Your task to perform on an android device: Open the Play Movies app and select the watchlist tab. Image 0: 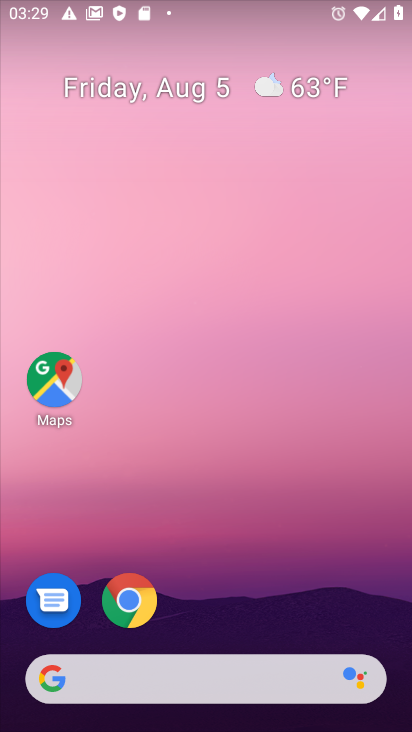
Step 0: drag from (176, 680) to (268, 2)
Your task to perform on an android device: Open the Play Movies app and select the watchlist tab. Image 1: 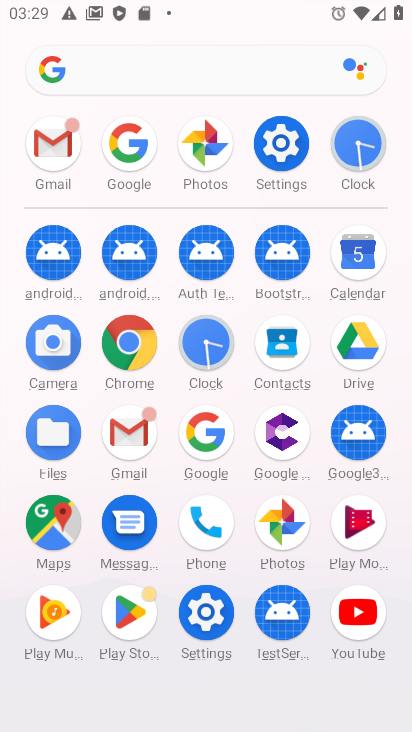
Step 1: click (359, 522)
Your task to perform on an android device: Open the Play Movies app and select the watchlist tab. Image 2: 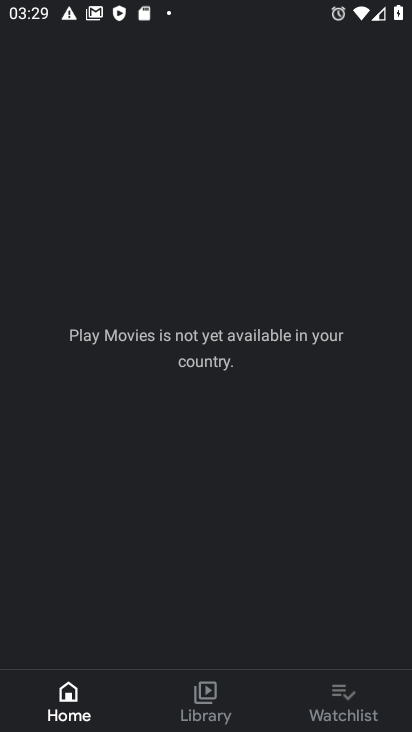
Step 2: click (342, 693)
Your task to perform on an android device: Open the Play Movies app and select the watchlist tab. Image 3: 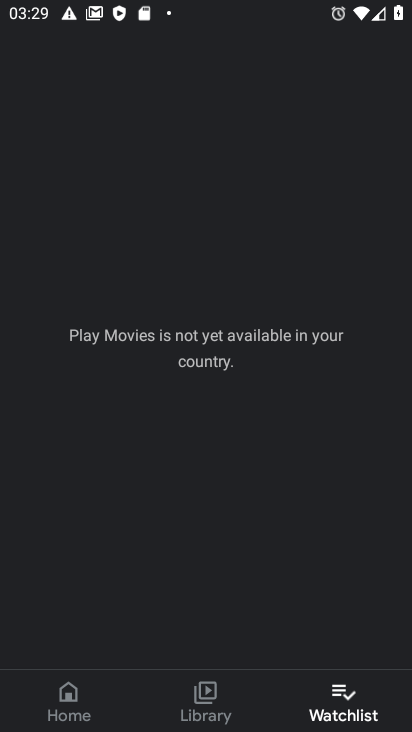
Step 3: task complete